Your task to perform on an android device: manage bookmarks in the chrome app Image 0: 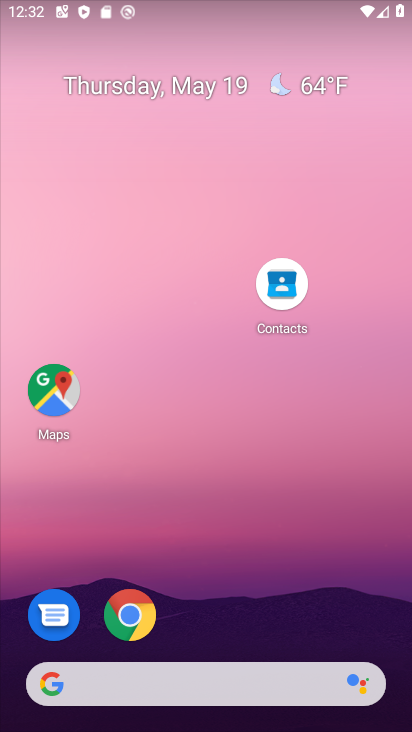
Step 0: drag from (253, 594) to (239, 142)
Your task to perform on an android device: manage bookmarks in the chrome app Image 1: 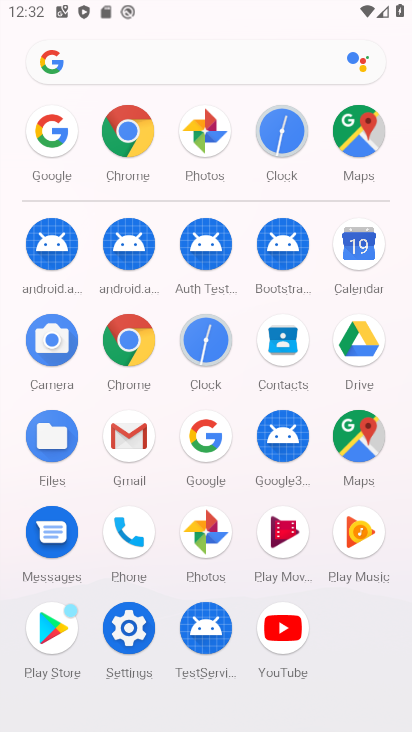
Step 1: click (135, 157)
Your task to perform on an android device: manage bookmarks in the chrome app Image 2: 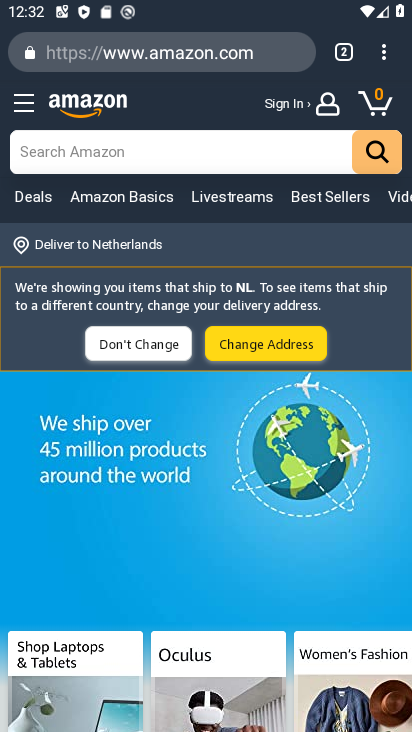
Step 2: click (382, 63)
Your task to perform on an android device: manage bookmarks in the chrome app Image 3: 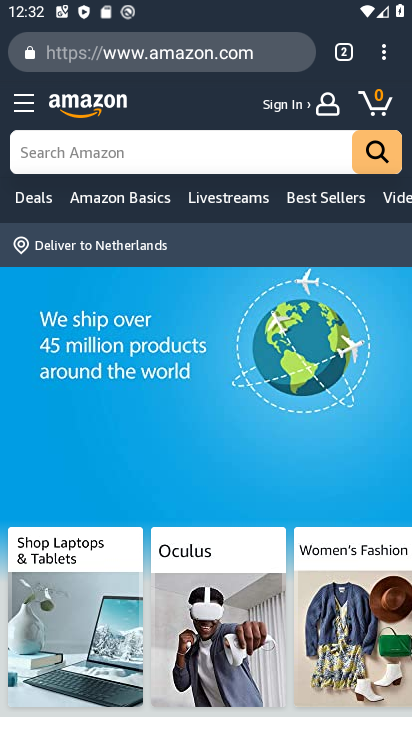
Step 3: click (387, 65)
Your task to perform on an android device: manage bookmarks in the chrome app Image 4: 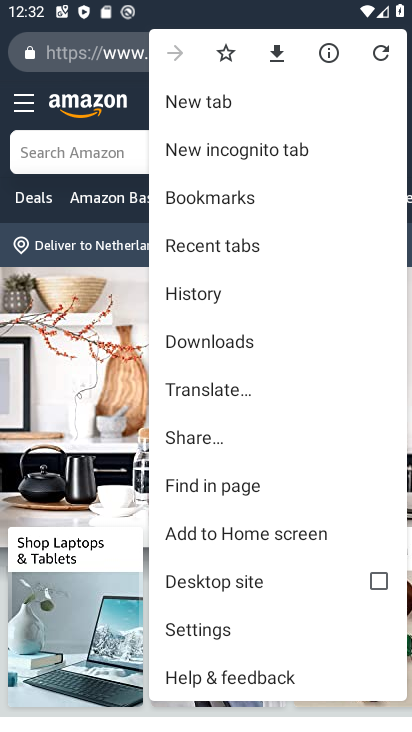
Step 4: click (256, 206)
Your task to perform on an android device: manage bookmarks in the chrome app Image 5: 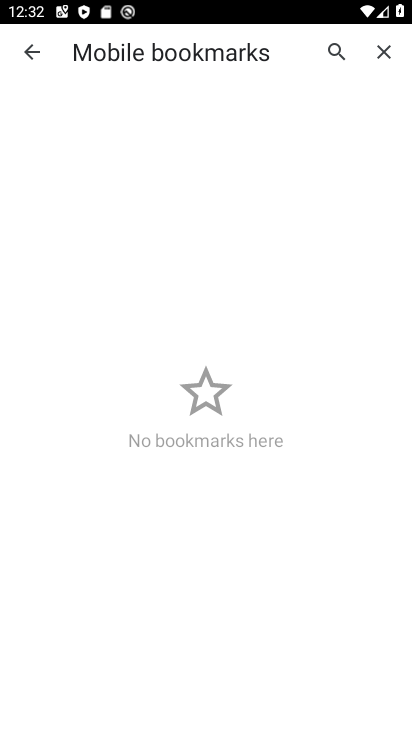
Step 5: task complete